Your task to perform on an android device: Open Chrome and go to settings Image 0: 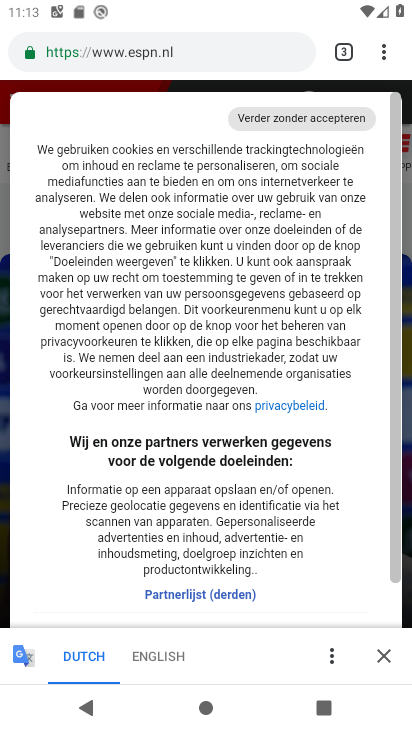
Step 0: press home button
Your task to perform on an android device: Open Chrome and go to settings Image 1: 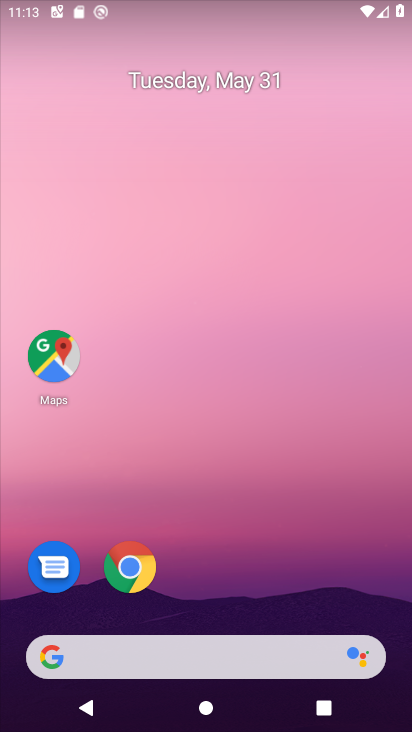
Step 1: click (128, 570)
Your task to perform on an android device: Open Chrome and go to settings Image 2: 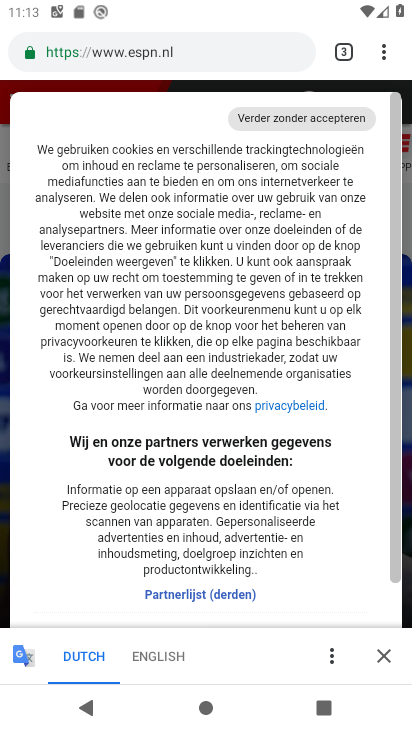
Step 2: click (394, 55)
Your task to perform on an android device: Open Chrome and go to settings Image 3: 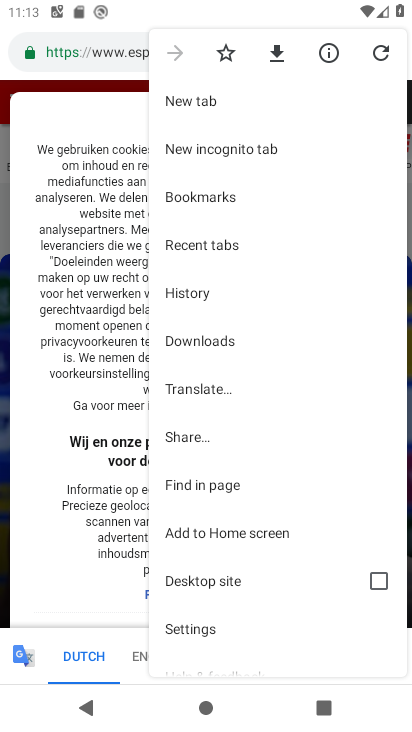
Step 3: click (178, 633)
Your task to perform on an android device: Open Chrome and go to settings Image 4: 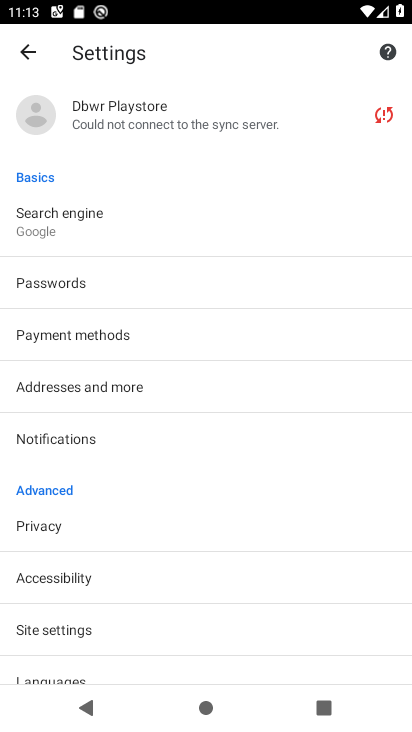
Step 4: task complete